Your task to perform on an android device: make emails show in primary in the gmail app Image 0: 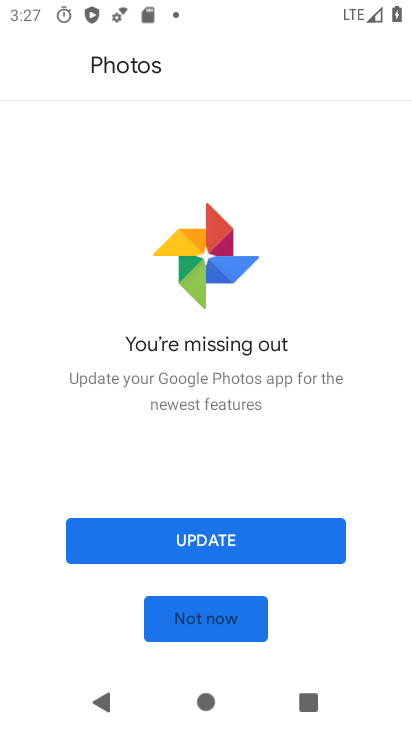
Step 0: press home button
Your task to perform on an android device: make emails show in primary in the gmail app Image 1: 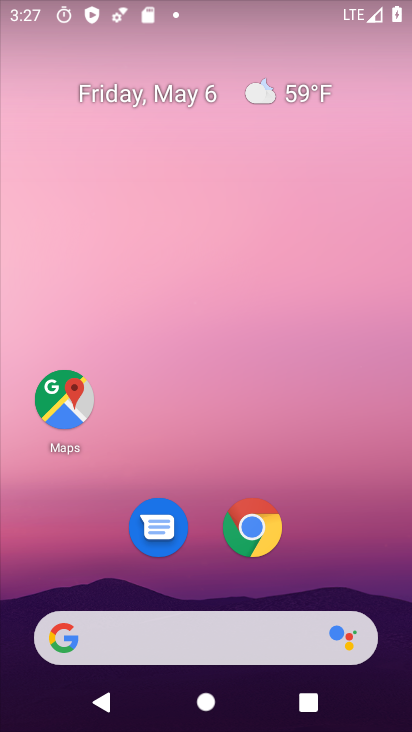
Step 1: drag from (306, 579) to (315, 124)
Your task to perform on an android device: make emails show in primary in the gmail app Image 2: 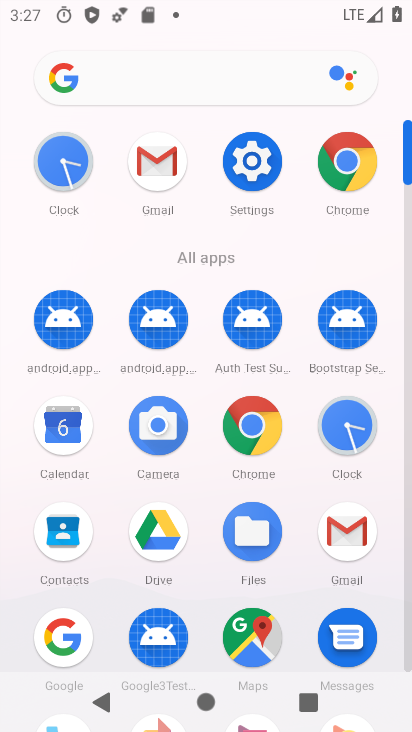
Step 2: click (336, 533)
Your task to perform on an android device: make emails show in primary in the gmail app Image 3: 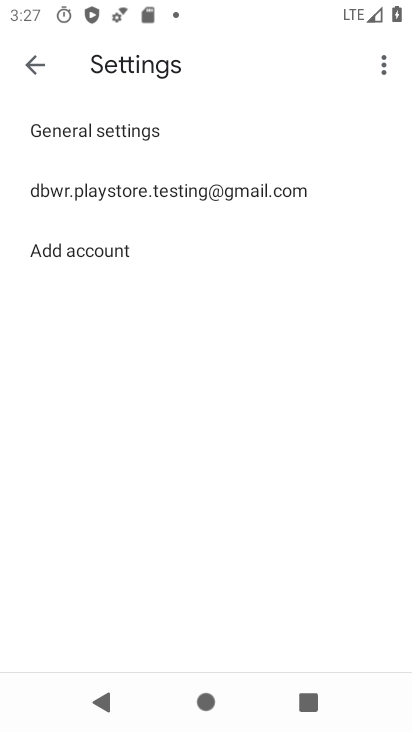
Step 3: click (100, 190)
Your task to perform on an android device: make emails show in primary in the gmail app Image 4: 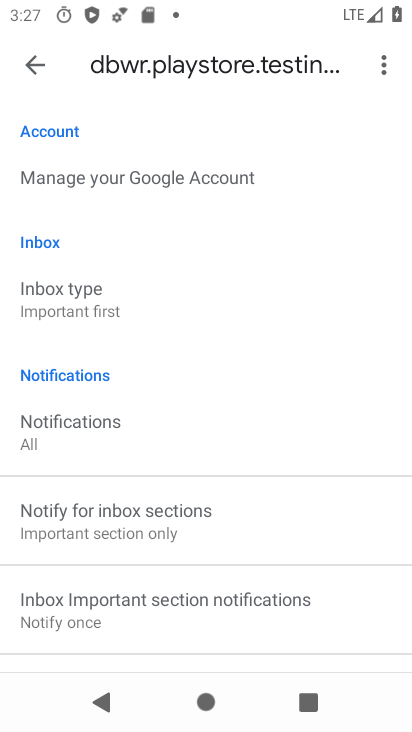
Step 4: task complete